Your task to perform on an android device: turn off javascript in the chrome app Image 0: 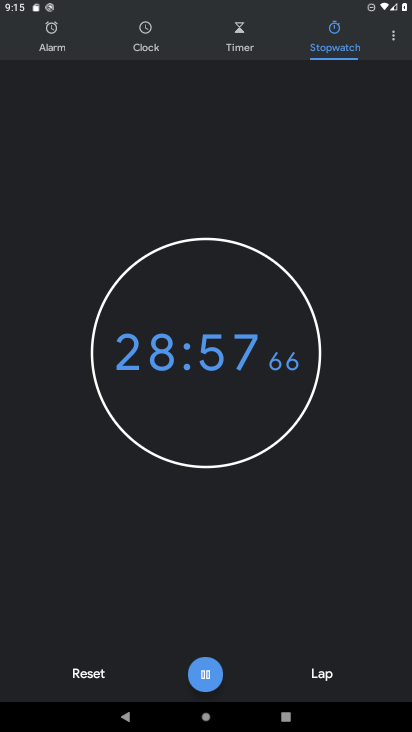
Step 0: press home button
Your task to perform on an android device: turn off javascript in the chrome app Image 1: 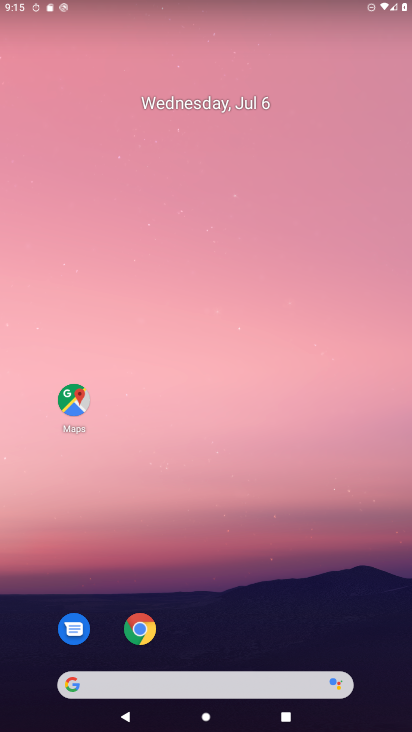
Step 1: click (139, 625)
Your task to perform on an android device: turn off javascript in the chrome app Image 2: 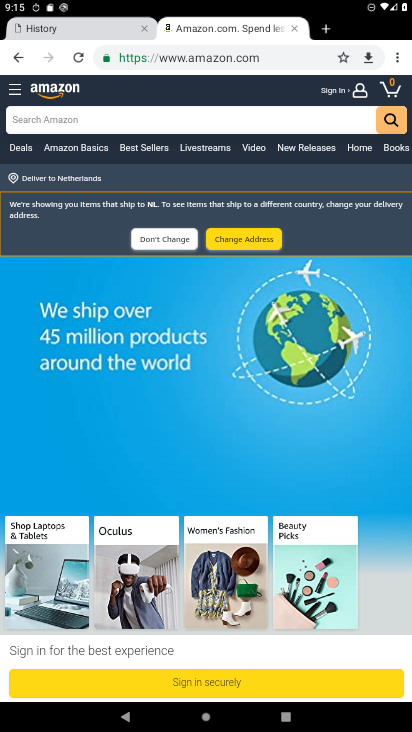
Step 2: click (398, 56)
Your task to perform on an android device: turn off javascript in the chrome app Image 3: 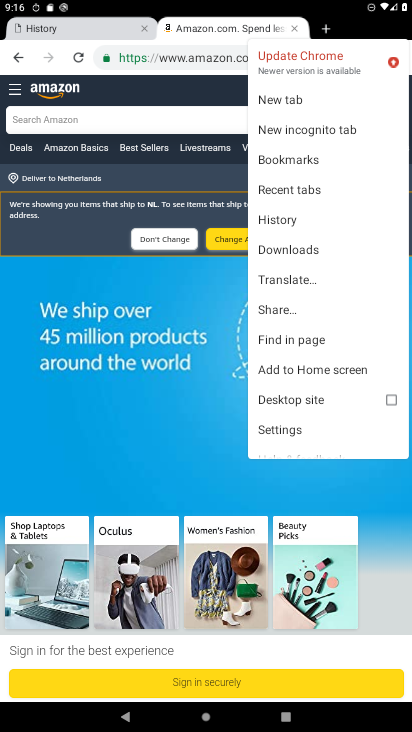
Step 3: click (291, 428)
Your task to perform on an android device: turn off javascript in the chrome app Image 4: 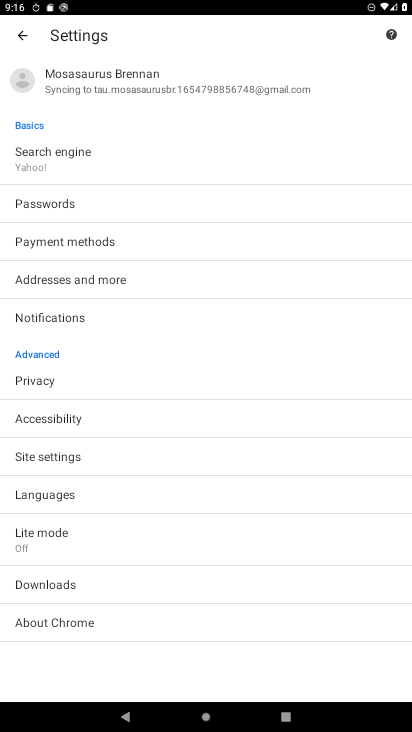
Step 4: click (65, 456)
Your task to perform on an android device: turn off javascript in the chrome app Image 5: 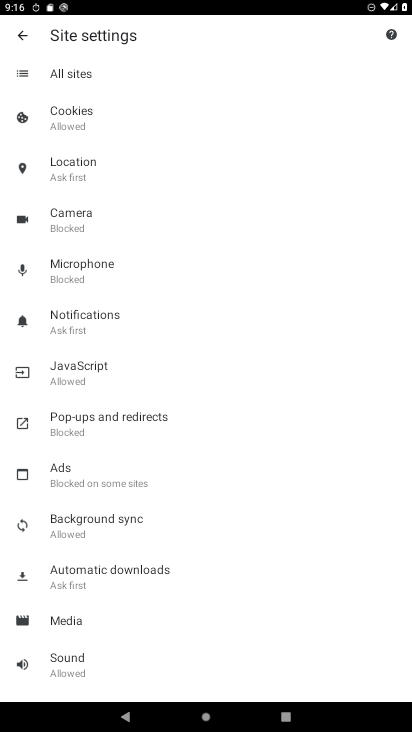
Step 5: click (75, 369)
Your task to perform on an android device: turn off javascript in the chrome app Image 6: 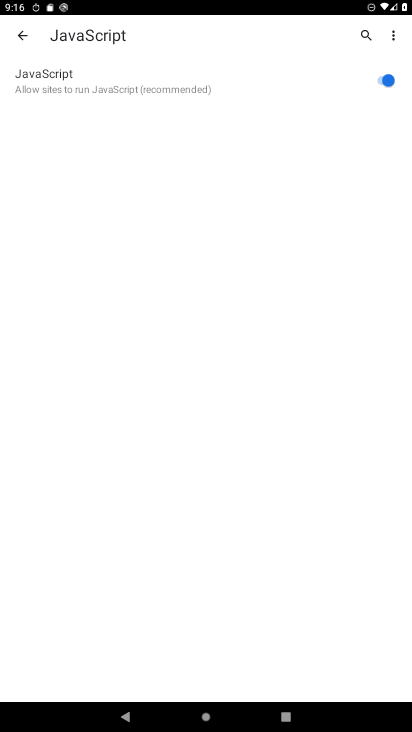
Step 6: click (382, 80)
Your task to perform on an android device: turn off javascript in the chrome app Image 7: 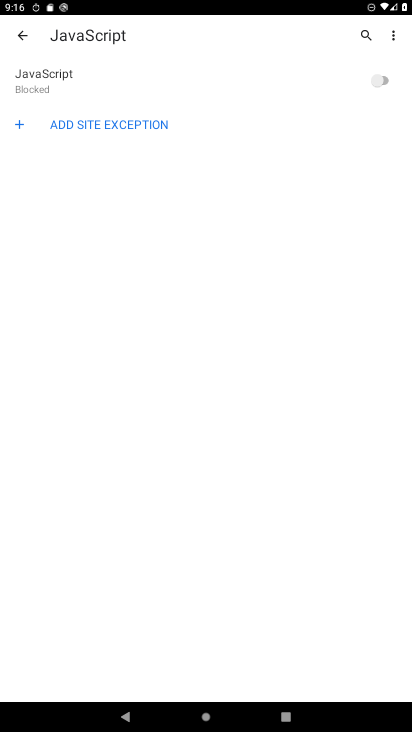
Step 7: task complete